Your task to perform on an android device: Show me recent news Image 0: 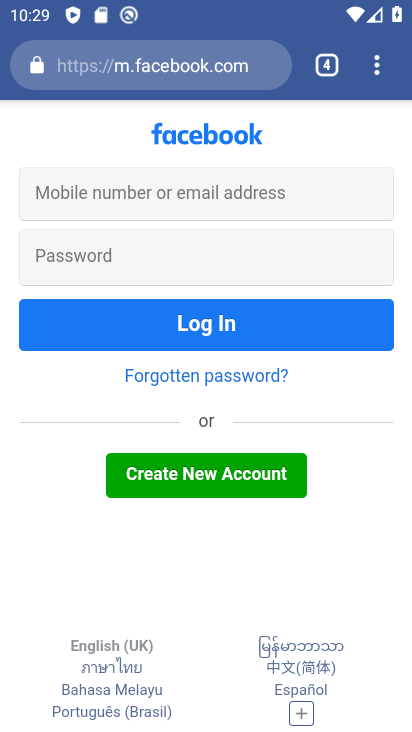
Step 0: press home button
Your task to perform on an android device: Show me recent news Image 1: 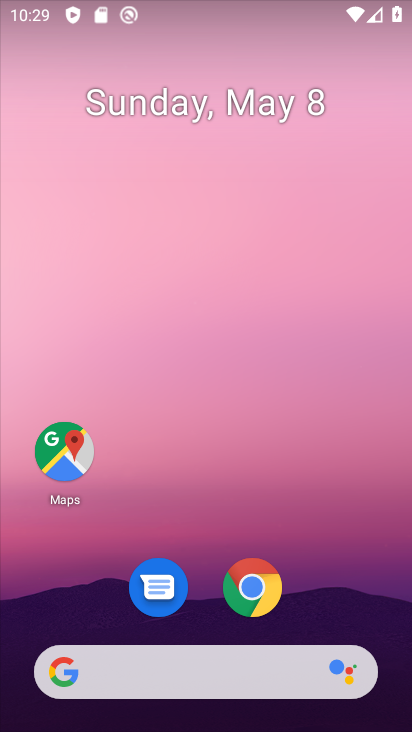
Step 1: drag from (379, 596) to (121, 6)
Your task to perform on an android device: Show me recent news Image 2: 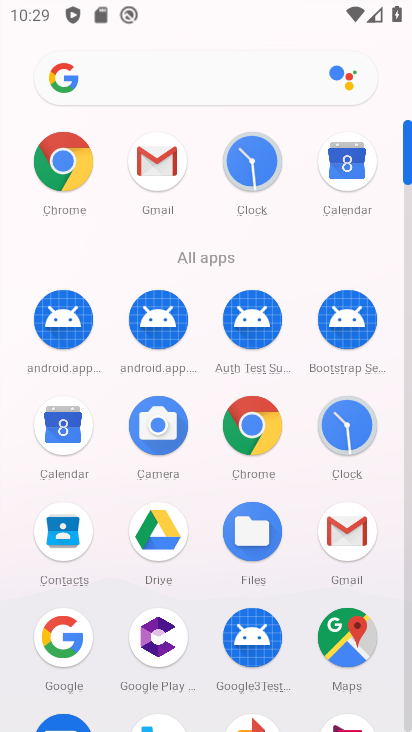
Step 2: press home button
Your task to perform on an android device: Show me recent news Image 3: 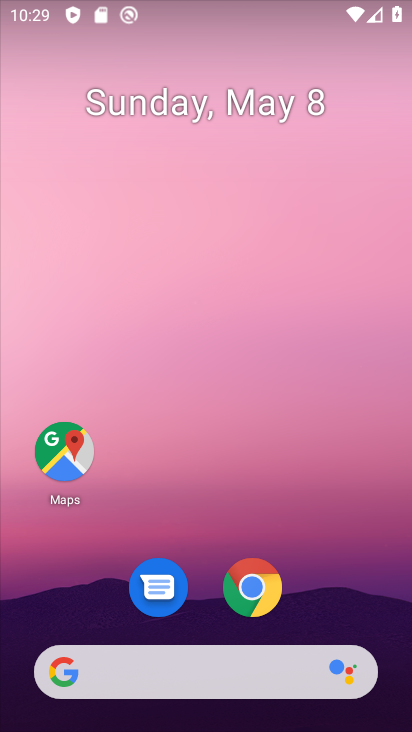
Step 3: drag from (6, 143) to (411, 385)
Your task to perform on an android device: Show me recent news Image 4: 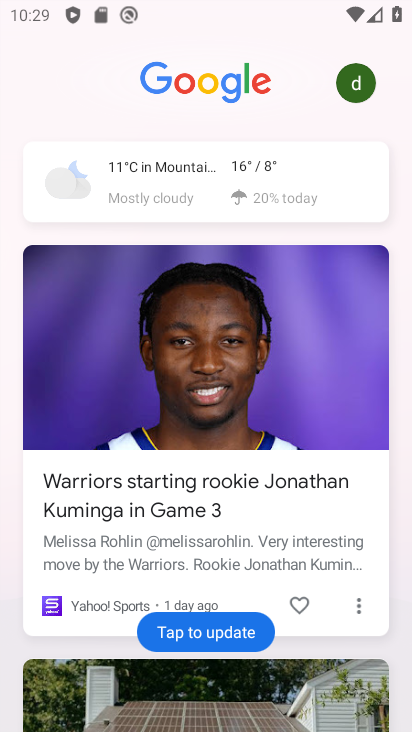
Step 4: click (186, 170)
Your task to perform on an android device: Show me recent news Image 5: 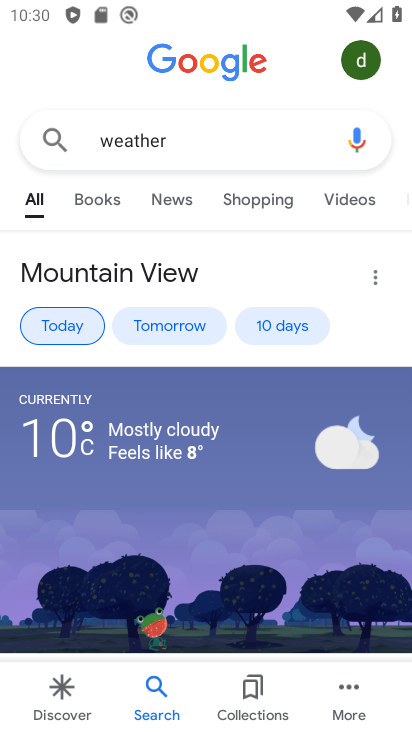
Step 5: click (182, 181)
Your task to perform on an android device: Show me recent news Image 6: 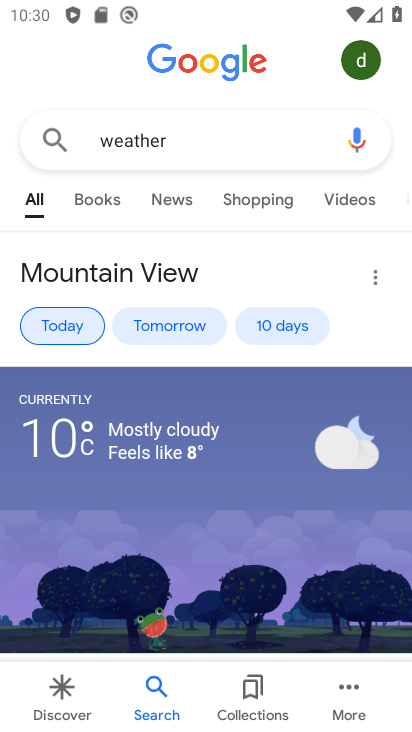
Step 6: click (201, 232)
Your task to perform on an android device: Show me recent news Image 7: 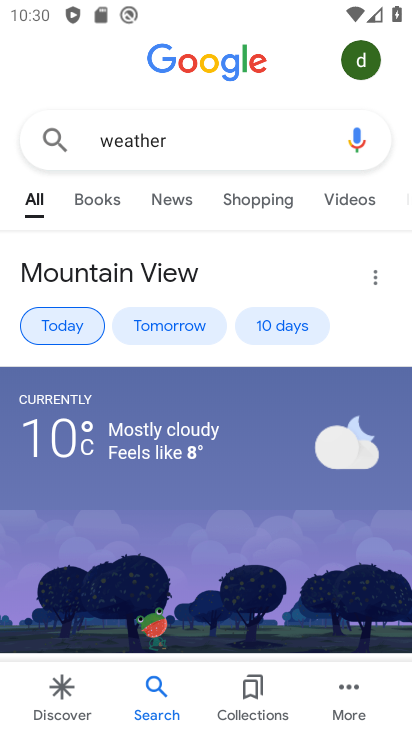
Step 7: task complete